Your task to perform on an android device: star an email in the gmail app Image 0: 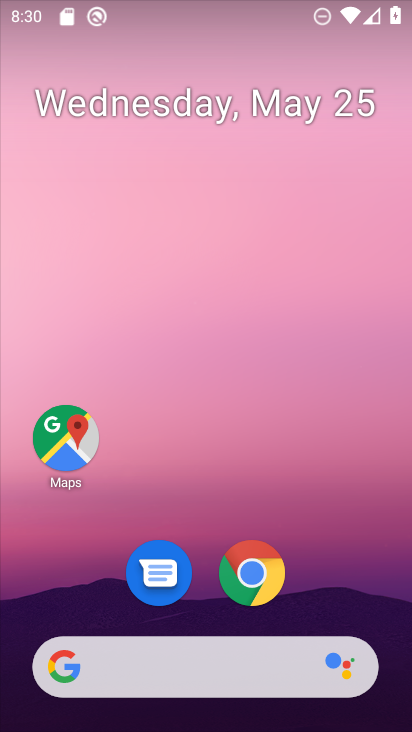
Step 0: drag from (393, 705) to (345, 292)
Your task to perform on an android device: star an email in the gmail app Image 1: 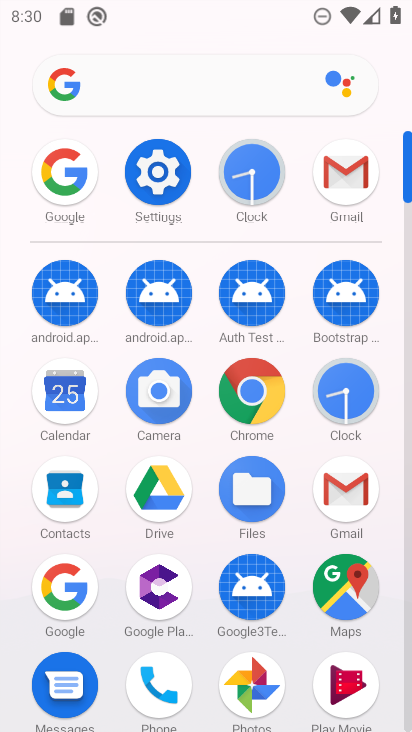
Step 1: click (343, 494)
Your task to perform on an android device: star an email in the gmail app Image 2: 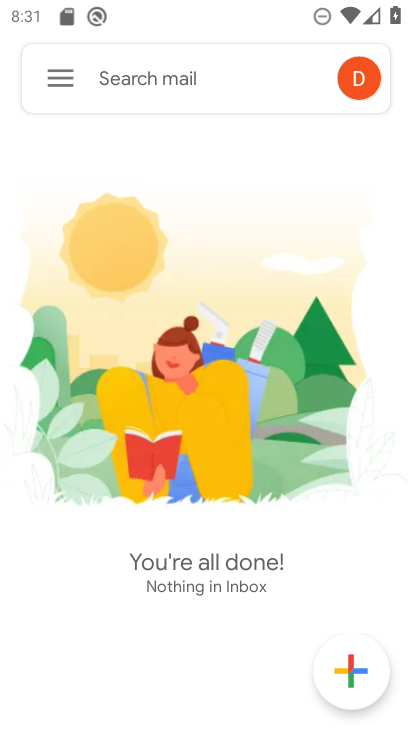
Step 2: click (49, 64)
Your task to perform on an android device: star an email in the gmail app Image 3: 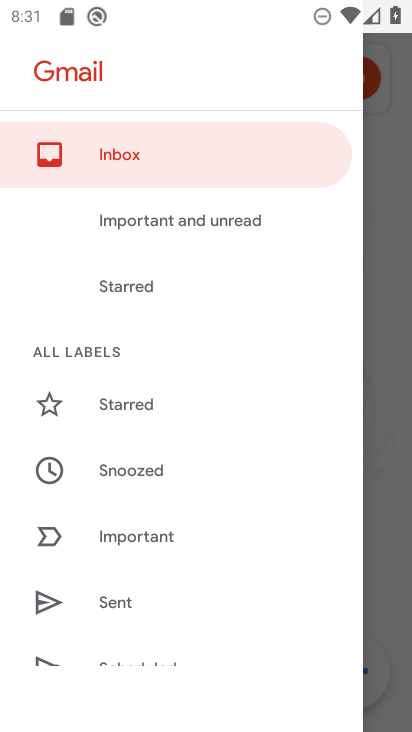
Step 3: click (94, 157)
Your task to perform on an android device: star an email in the gmail app Image 4: 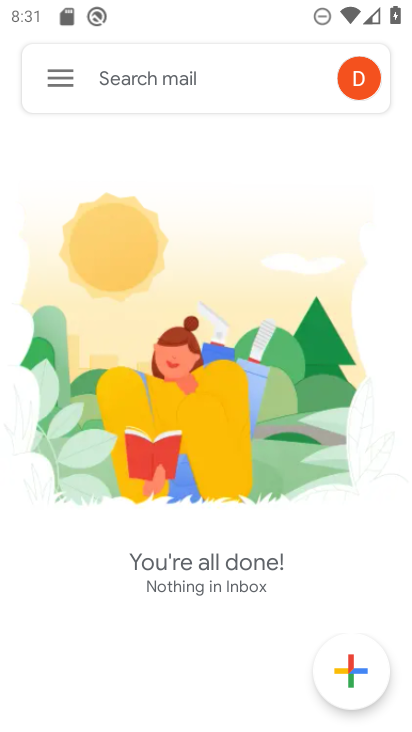
Step 4: task complete